Your task to perform on an android device: Go to internet settings Image 0: 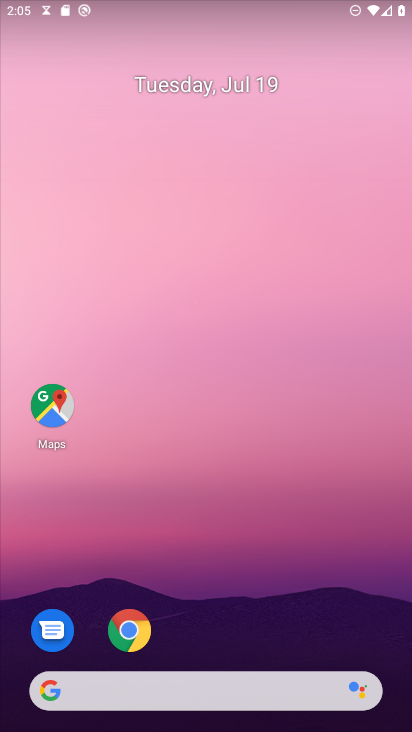
Step 0: press home button
Your task to perform on an android device: Go to internet settings Image 1: 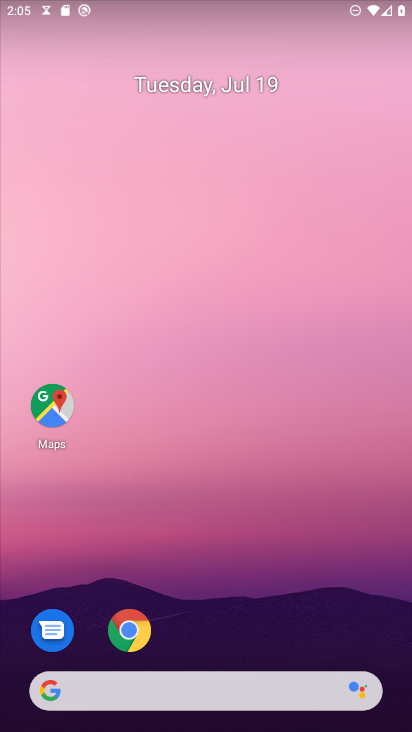
Step 1: drag from (199, 698) to (305, 179)
Your task to perform on an android device: Go to internet settings Image 2: 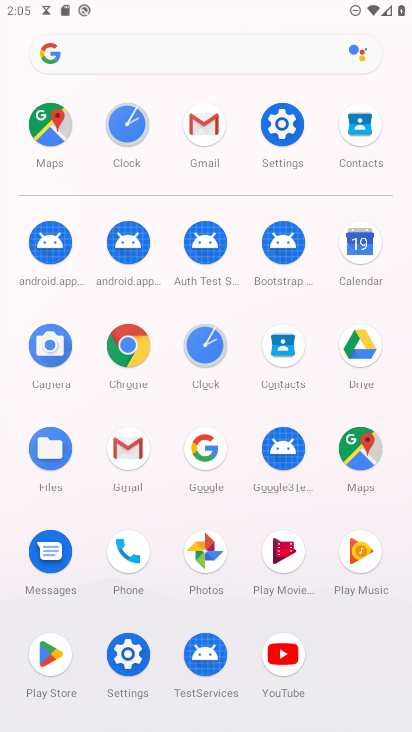
Step 2: click (279, 124)
Your task to perform on an android device: Go to internet settings Image 3: 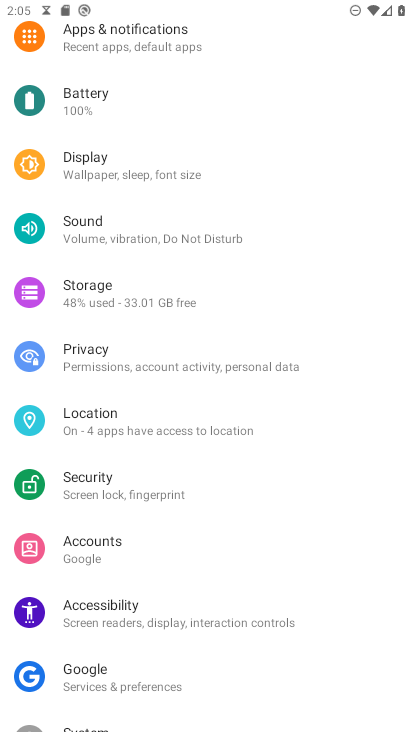
Step 3: drag from (297, 138) to (272, 608)
Your task to perform on an android device: Go to internet settings Image 4: 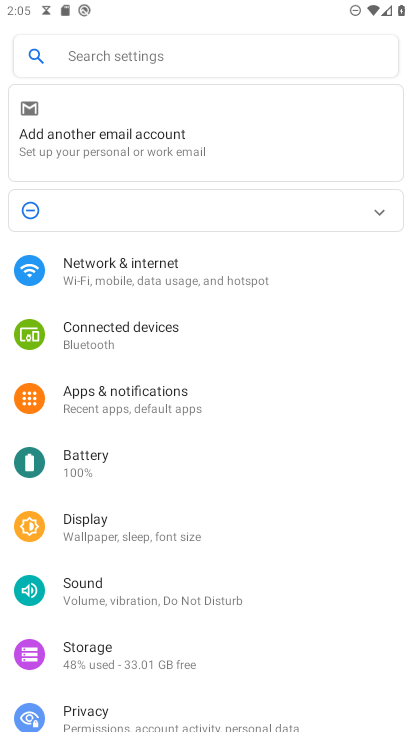
Step 4: click (151, 265)
Your task to perform on an android device: Go to internet settings Image 5: 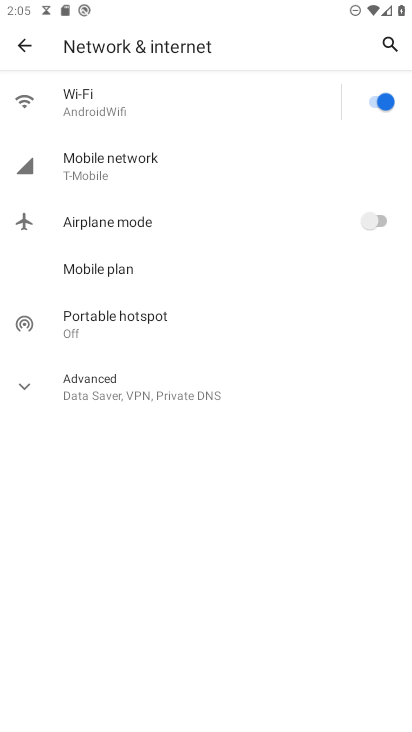
Step 5: task complete